Your task to perform on an android device: change the clock display to show seconds Image 0: 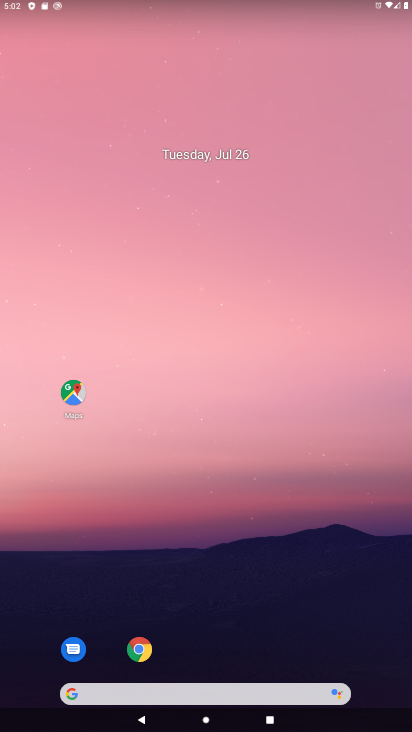
Step 0: drag from (283, 654) to (203, 100)
Your task to perform on an android device: change the clock display to show seconds Image 1: 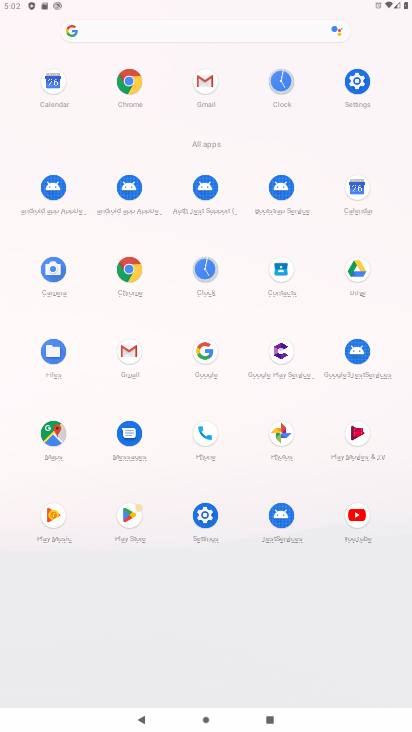
Step 1: click (286, 87)
Your task to perform on an android device: change the clock display to show seconds Image 2: 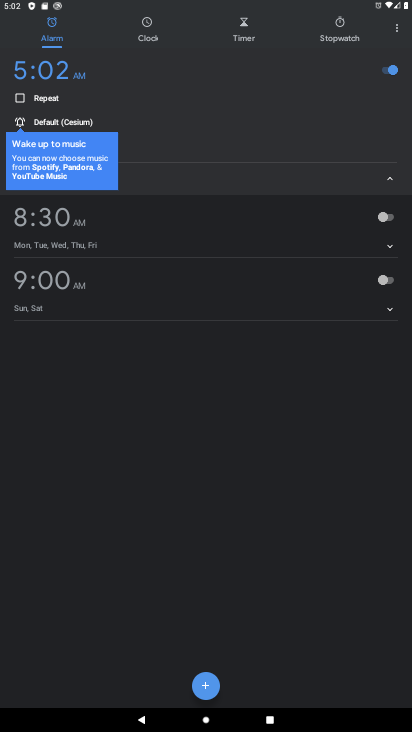
Step 2: click (394, 30)
Your task to perform on an android device: change the clock display to show seconds Image 3: 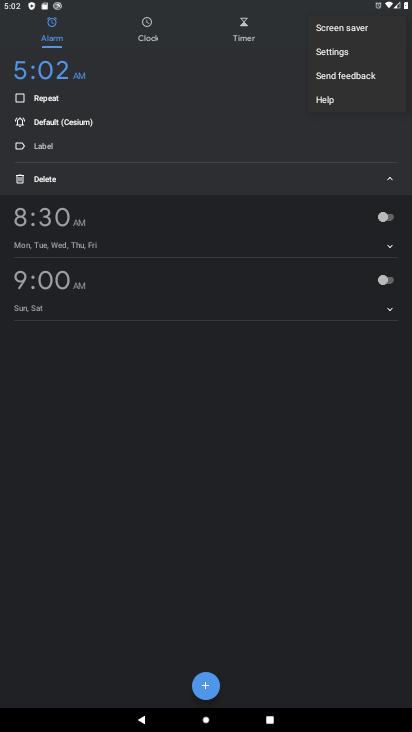
Step 3: click (360, 56)
Your task to perform on an android device: change the clock display to show seconds Image 4: 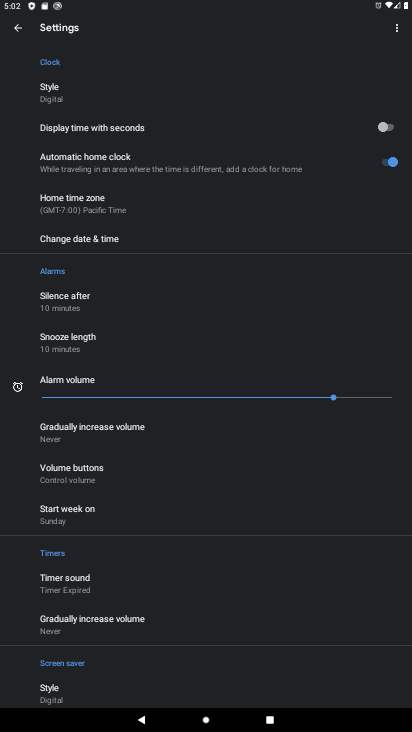
Step 4: click (391, 138)
Your task to perform on an android device: change the clock display to show seconds Image 5: 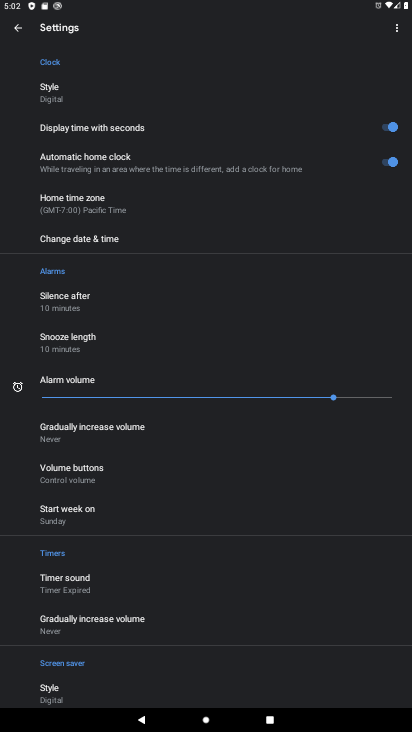
Step 5: task complete